Your task to perform on an android device: Open Chrome and go to settings Image 0: 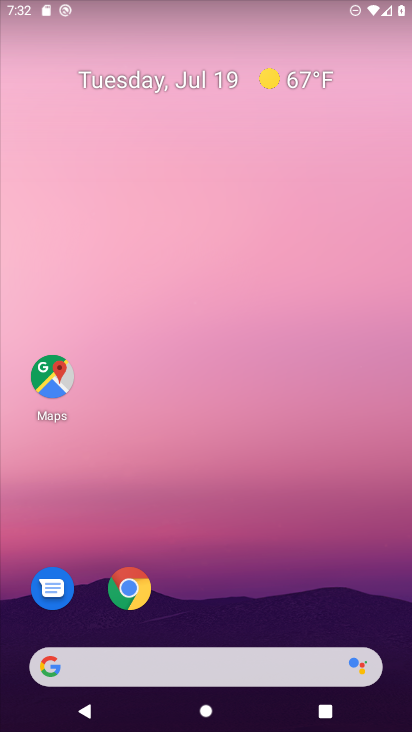
Step 0: drag from (351, 602) to (373, 63)
Your task to perform on an android device: Open Chrome and go to settings Image 1: 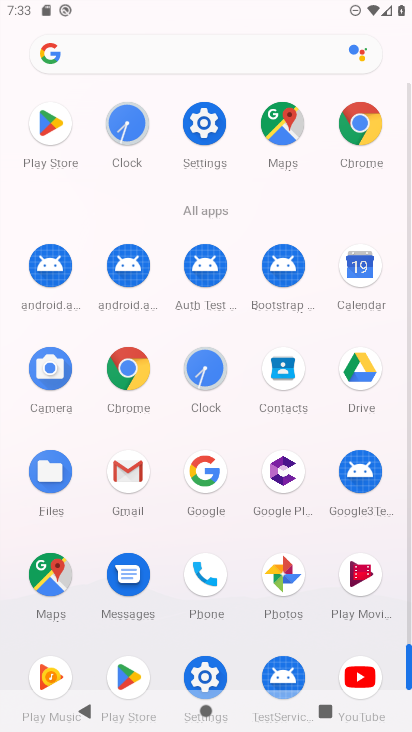
Step 1: click (363, 128)
Your task to perform on an android device: Open Chrome and go to settings Image 2: 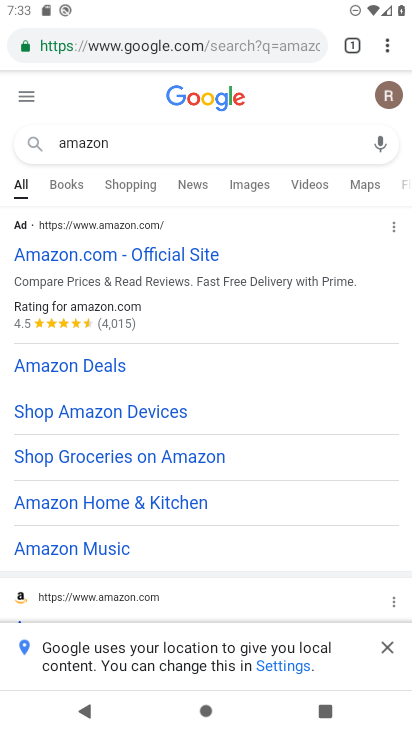
Step 2: click (389, 51)
Your task to perform on an android device: Open Chrome and go to settings Image 3: 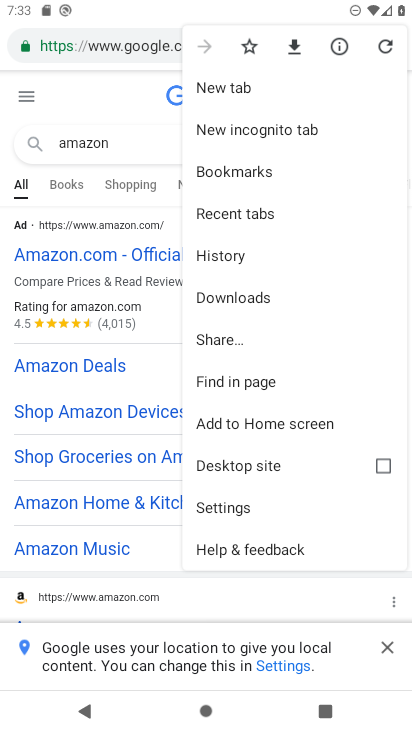
Step 3: click (254, 507)
Your task to perform on an android device: Open Chrome and go to settings Image 4: 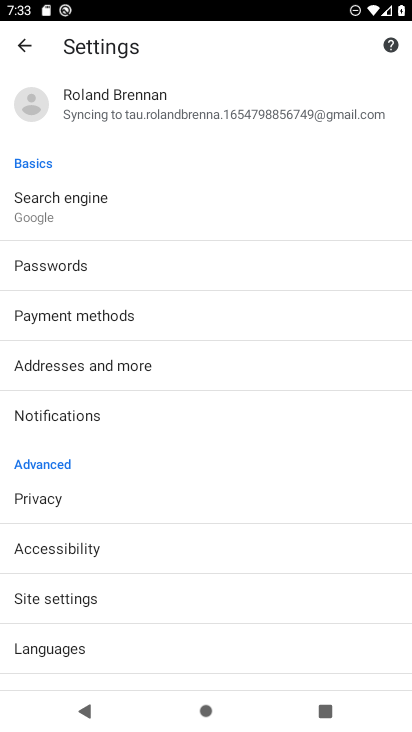
Step 4: task complete